Your task to perform on an android device: open a new tab in the chrome app Image 0: 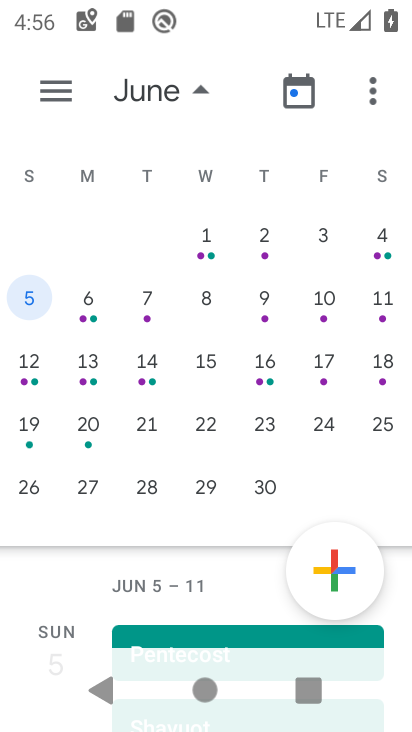
Step 0: press home button
Your task to perform on an android device: open a new tab in the chrome app Image 1: 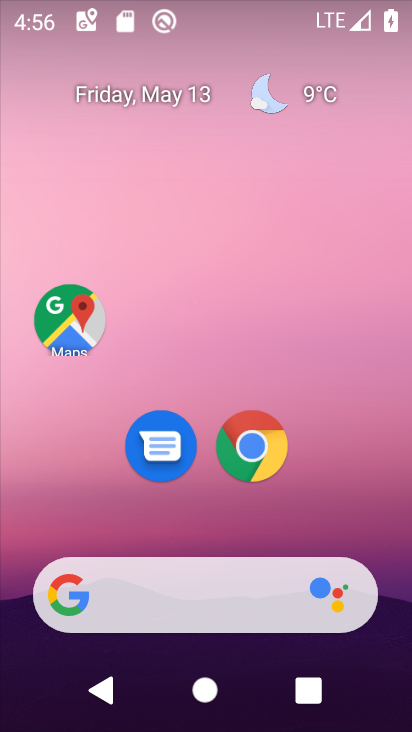
Step 1: click (241, 460)
Your task to perform on an android device: open a new tab in the chrome app Image 2: 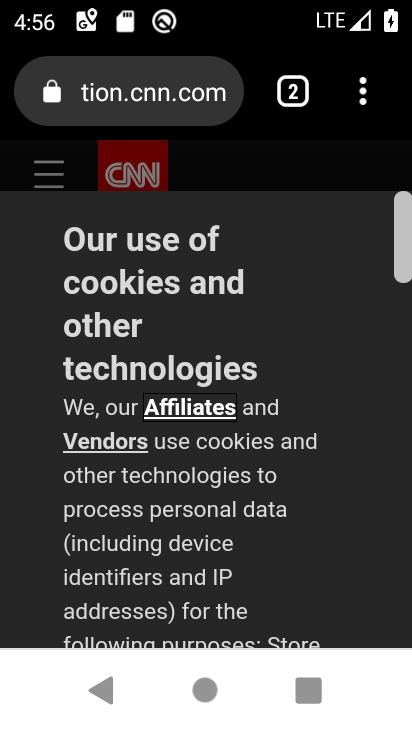
Step 2: click (358, 107)
Your task to perform on an android device: open a new tab in the chrome app Image 3: 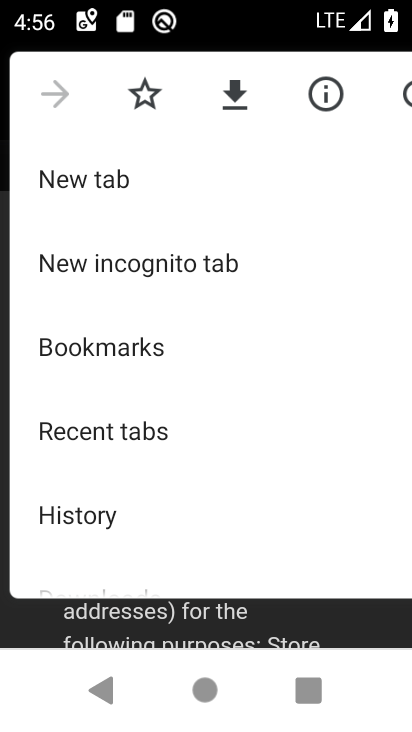
Step 3: click (105, 189)
Your task to perform on an android device: open a new tab in the chrome app Image 4: 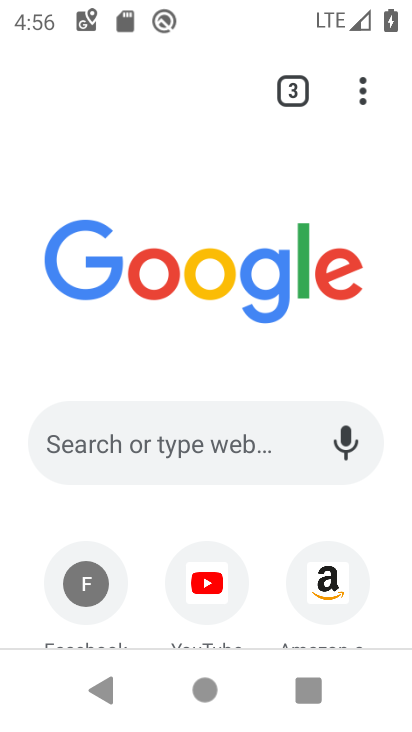
Step 4: task complete